Your task to perform on an android device: change notifications settings Image 0: 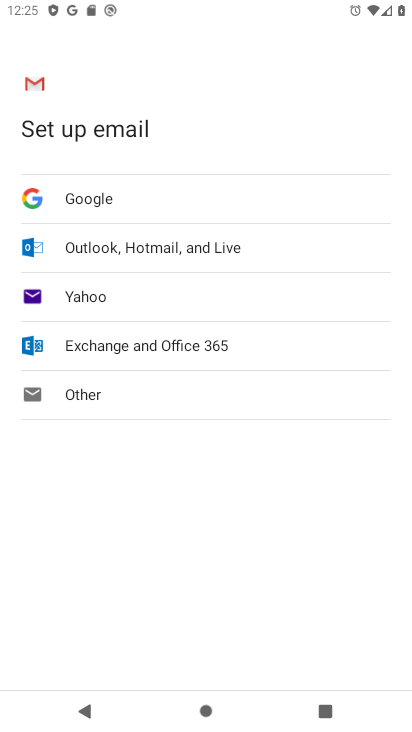
Step 0: press home button
Your task to perform on an android device: change notifications settings Image 1: 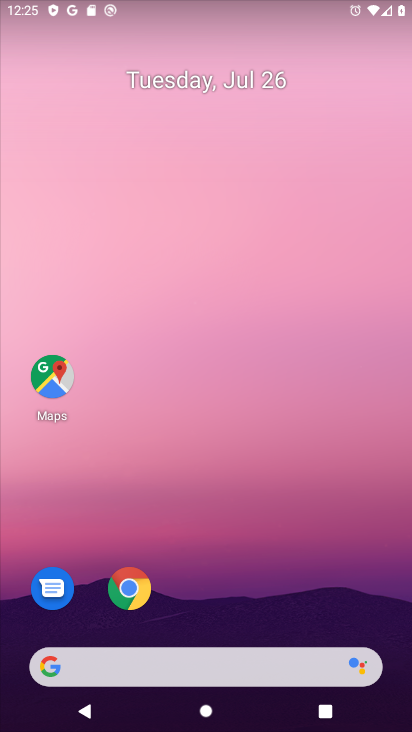
Step 1: drag from (253, 621) to (192, 194)
Your task to perform on an android device: change notifications settings Image 2: 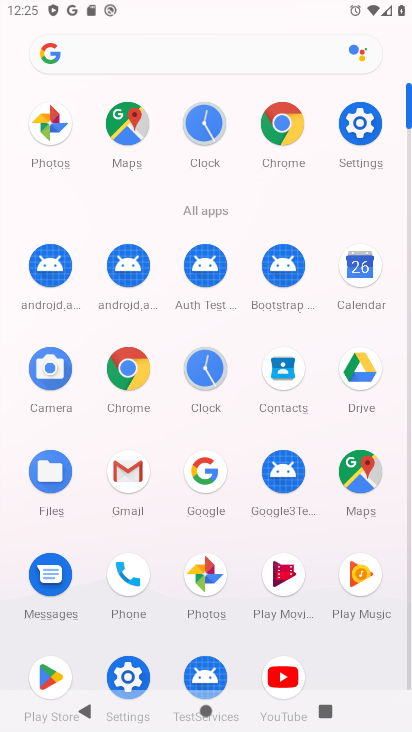
Step 2: click (352, 128)
Your task to perform on an android device: change notifications settings Image 3: 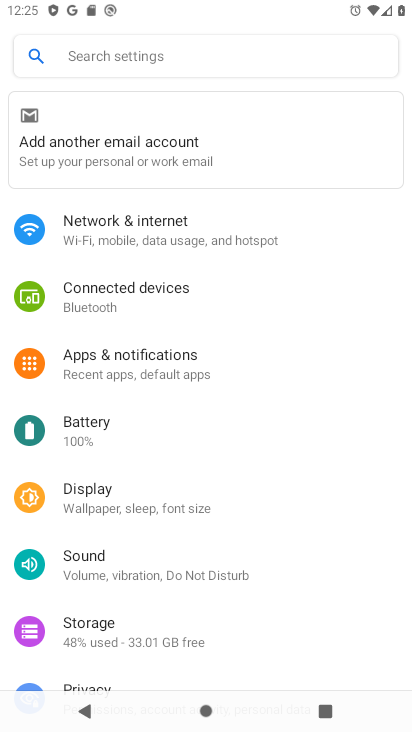
Step 3: click (197, 366)
Your task to perform on an android device: change notifications settings Image 4: 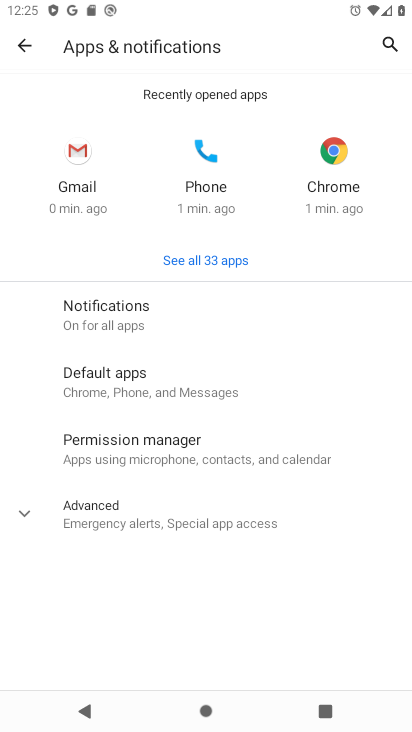
Step 4: click (194, 325)
Your task to perform on an android device: change notifications settings Image 5: 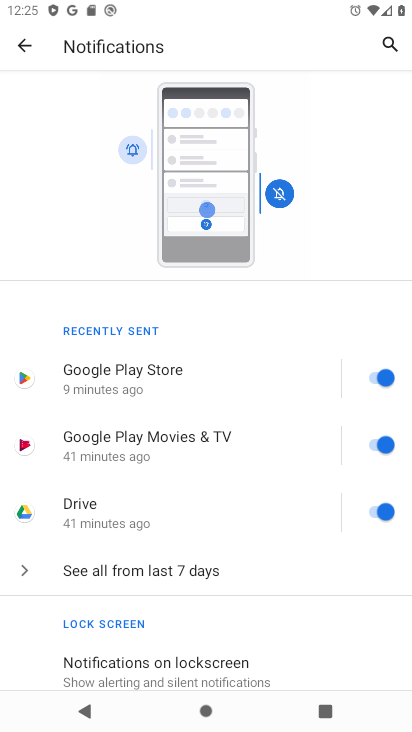
Step 5: drag from (251, 614) to (172, 267)
Your task to perform on an android device: change notifications settings Image 6: 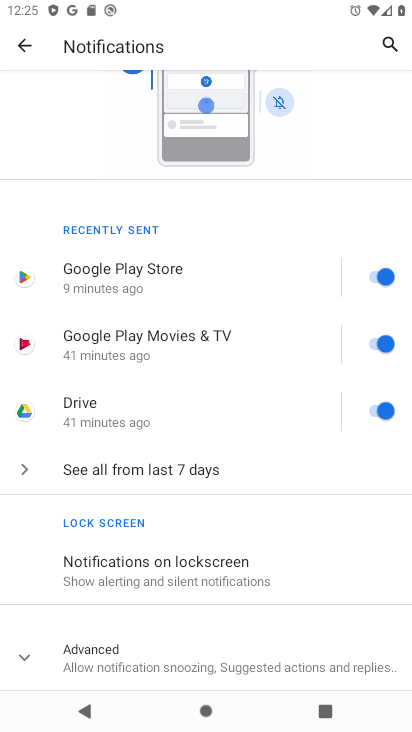
Step 6: click (202, 645)
Your task to perform on an android device: change notifications settings Image 7: 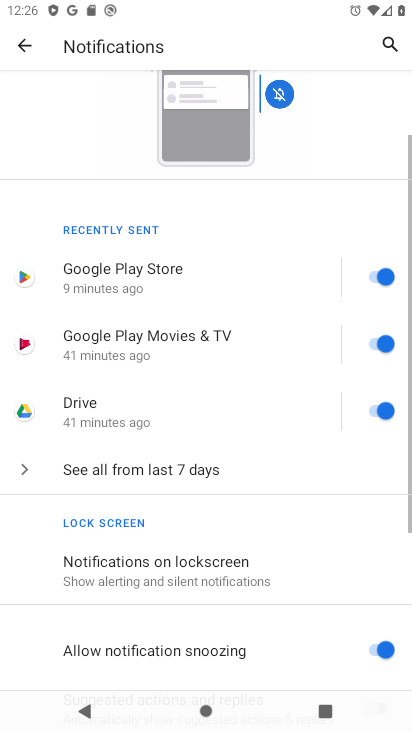
Step 7: drag from (222, 618) to (133, 214)
Your task to perform on an android device: change notifications settings Image 8: 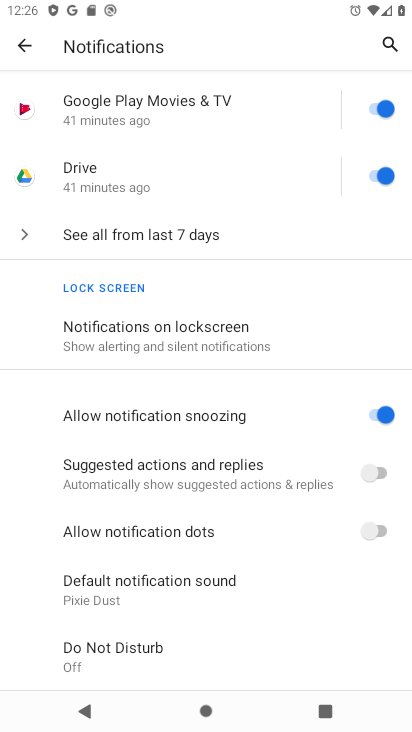
Step 8: click (381, 516)
Your task to perform on an android device: change notifications settings Image 9: 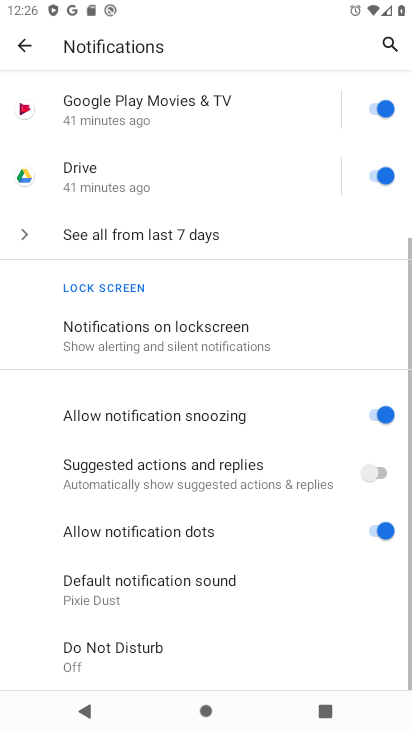
Step 9: click (375, 480)
Your task to perform on an android device: change notifications settings Image 10: 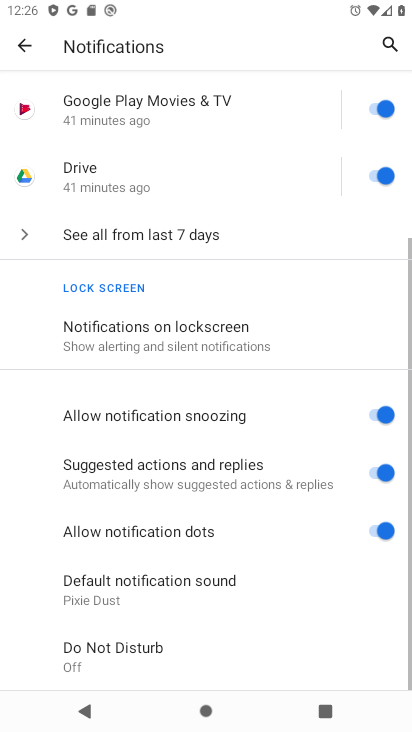
Step 10: click (380, 410)
Your task to perform on an android device: change notifications settings Image 11: 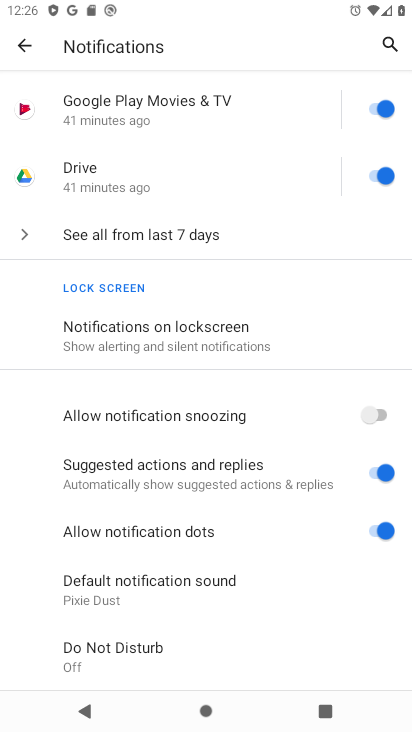
Step 11: task complete